Your task to perform on an android device: turn on wifi Image 0: 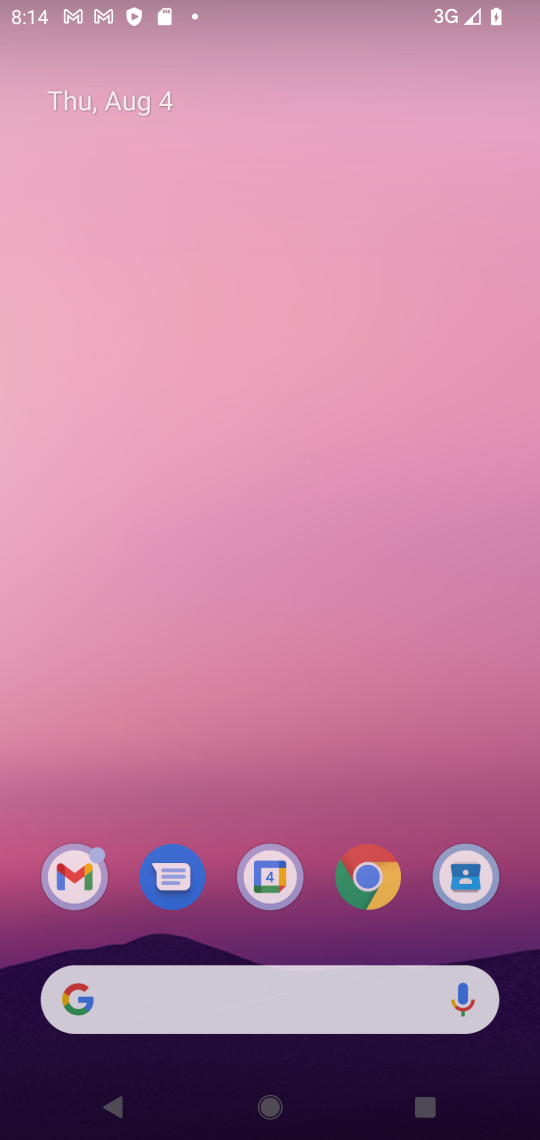
Step 0: press home button
Your task to perform on an android device: turn on wifi Image 1: 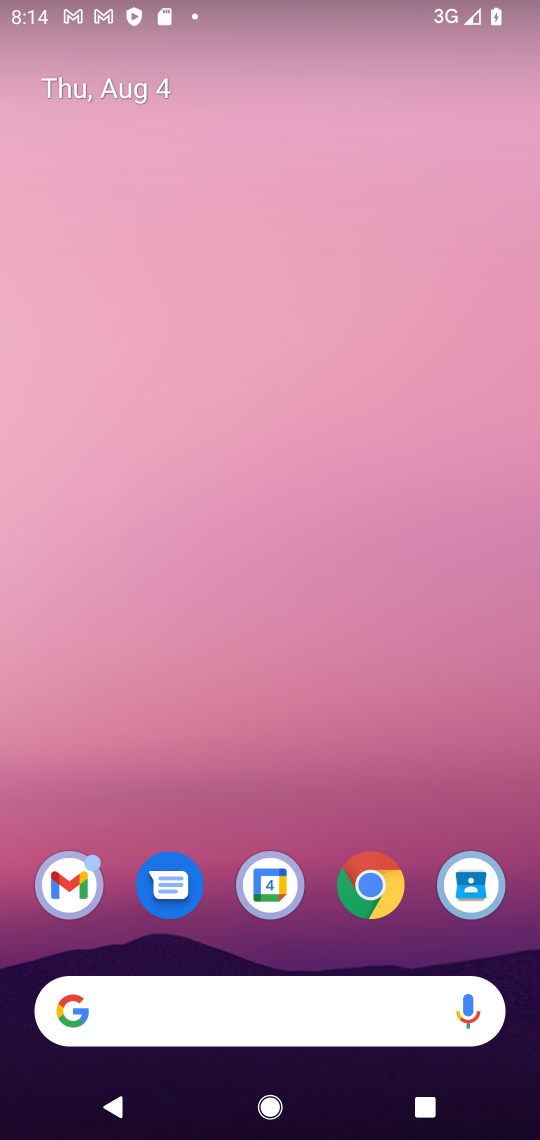
Step 1: task complete